Your task to perform on an android device: Check the weather Image 0: 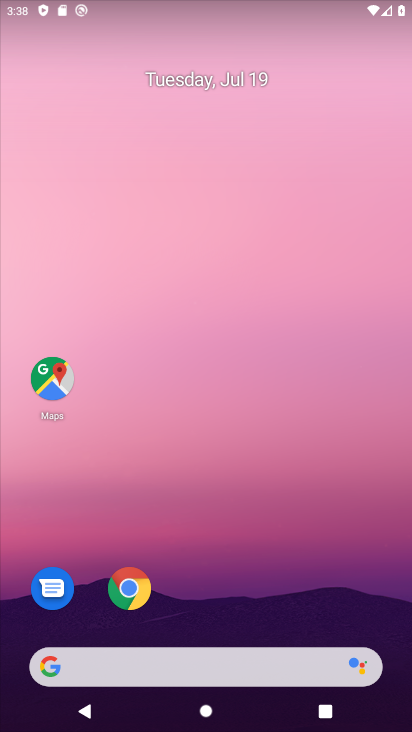
Step 0: click (132, 595)
Your task to perform on an android device: Check the weather Image 1: 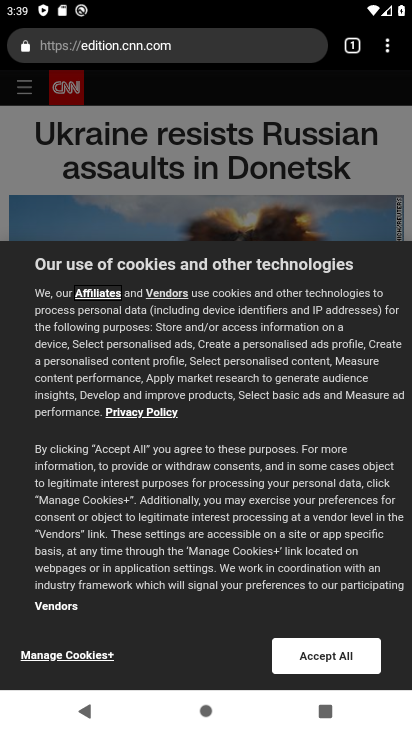
Step 1: click (213, 45)
Your task to perform on an android device: Check the weather Image 2: 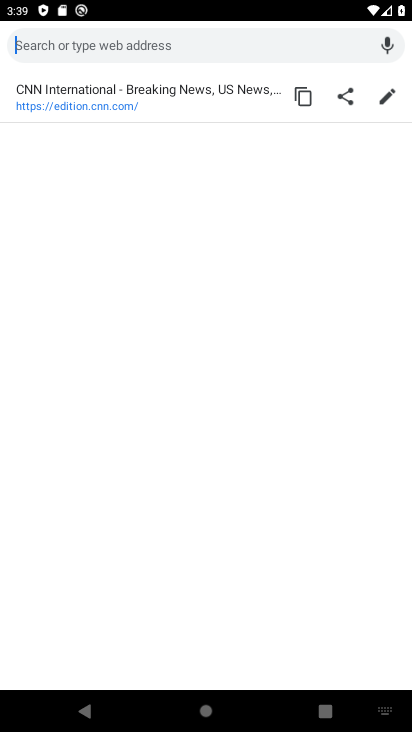
Step 2: type "check the weather"
Your task to perform on an android device: Check the weather Image 3: 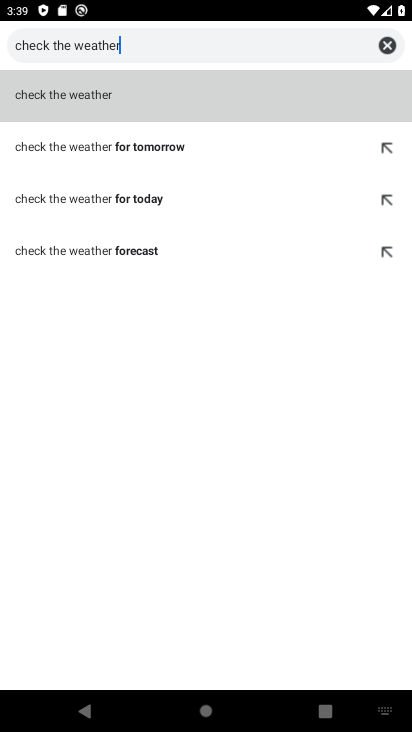
Step 3: click (112, 101)
Your task to perform on an android device: Check the weather Image 4: 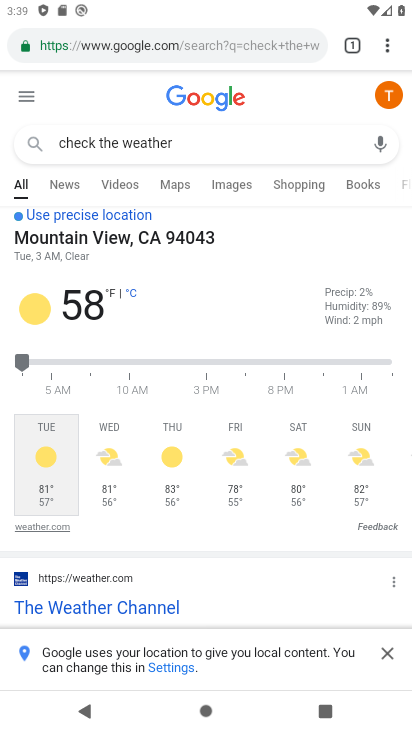
Step 4: task complete